Your task to perform on an android device: set the timer Image 0: 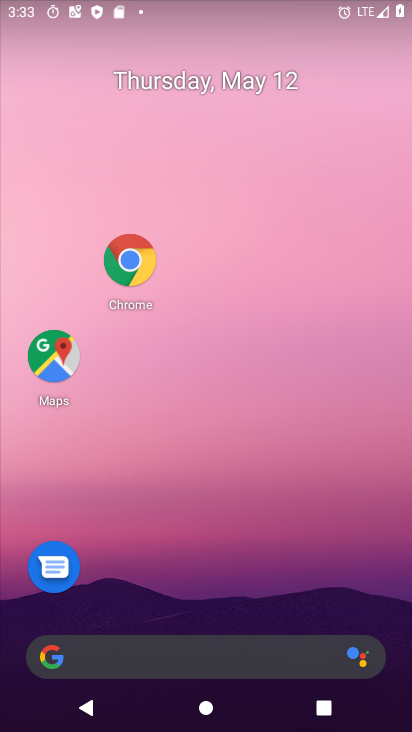
Step 0: drag from (225, 622) to (239, 254)
Your task to perform on an android device: set the timer Image 1: 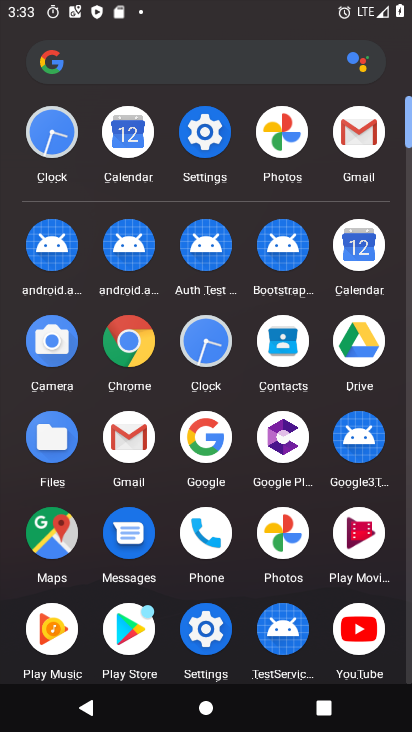
Step 1: click (198, 353)
Your task to perform on an android device: set the timer Image 2: 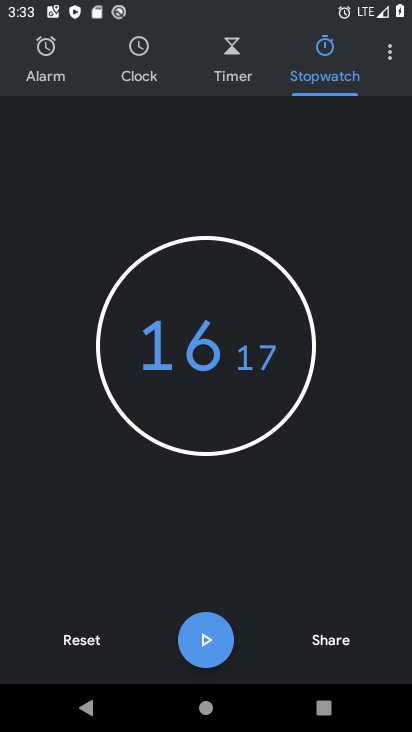
Step 2: click (223, 65)
Your task to perform on an android device: set the timer Image 3: 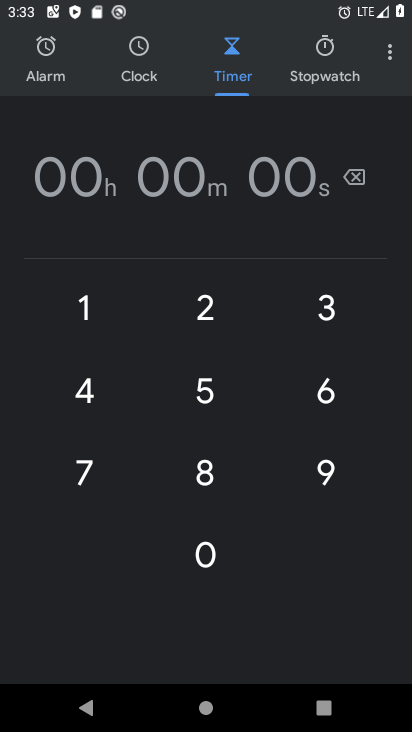
Step 3: click (207, 563)
Your task to perform on an android device: set the timer Image 4: 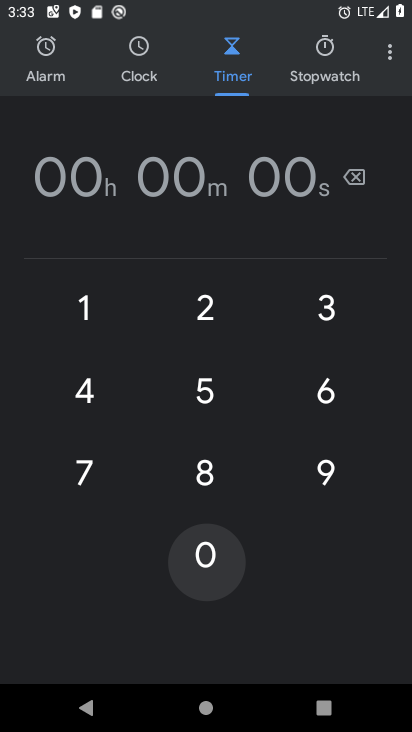
Step 4: click (207, 563)
Your task to perform on an android device: set the timer Image 5: 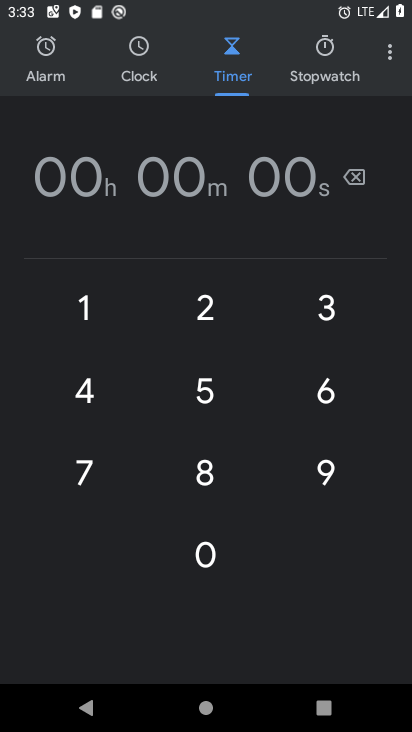
Step 5: click (207, 563)
Your task to perform on an android device: set the timer Image 6: 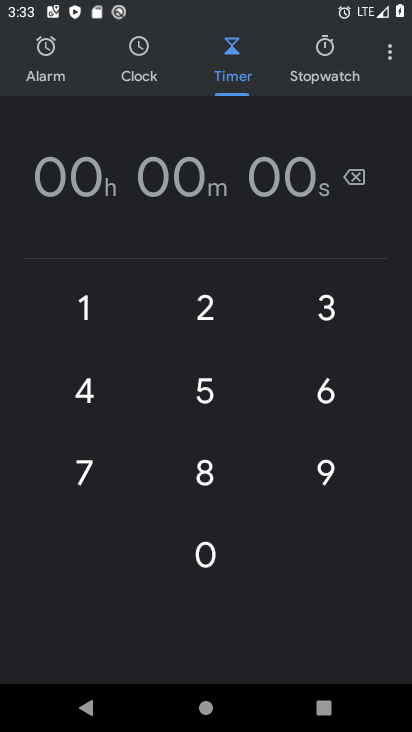
Step 6: click (220, 398)
Your task to perform on an android device: set the timer Image 7: 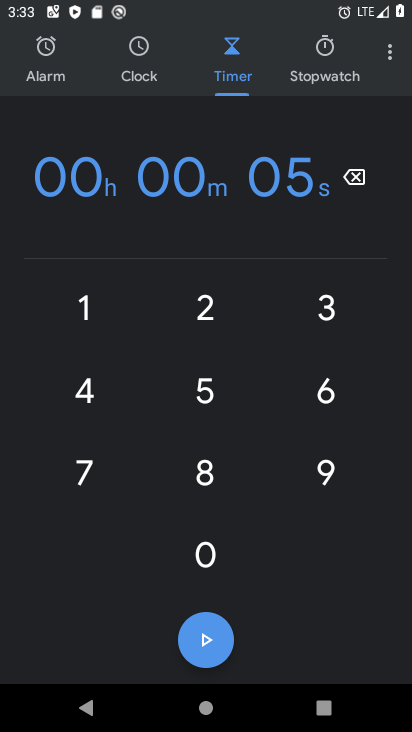
Step 7: click (199, 562)
Your task to perform on an android device: set the timer Image 8: 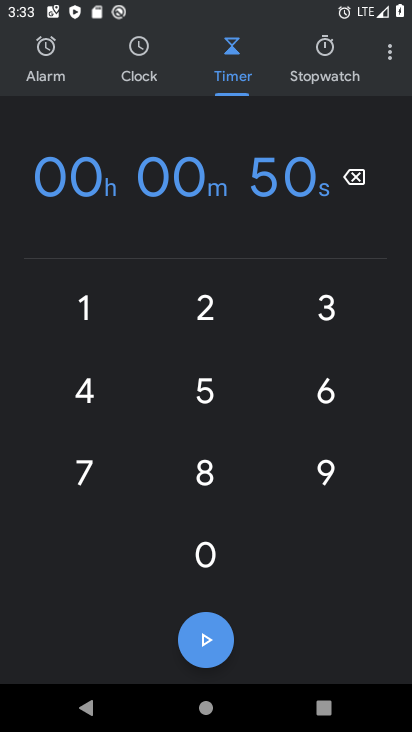
Step 8: click (330, 481)
Your task to perform on an android device: set the timer Image 9: 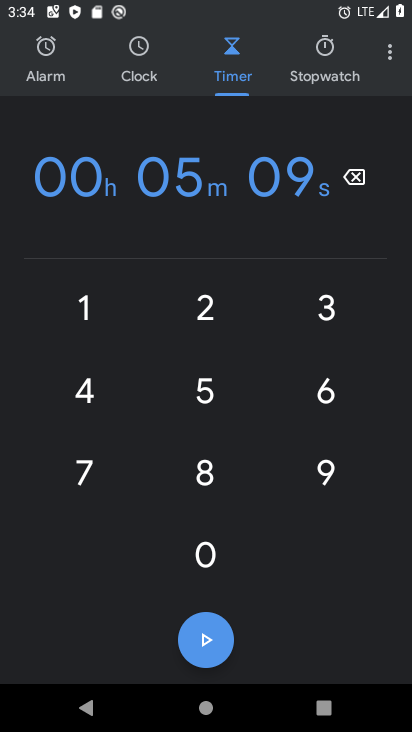
Step 9: click (210, 639)
Your task to perform on an android device: set the timer Image 10: 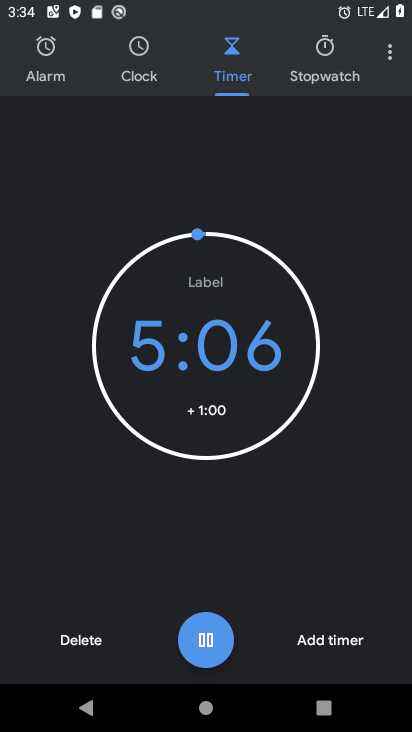
Step 10: task complete